Your task to perform on an android device: allow notifications from all sites in the chrome app Image 0: 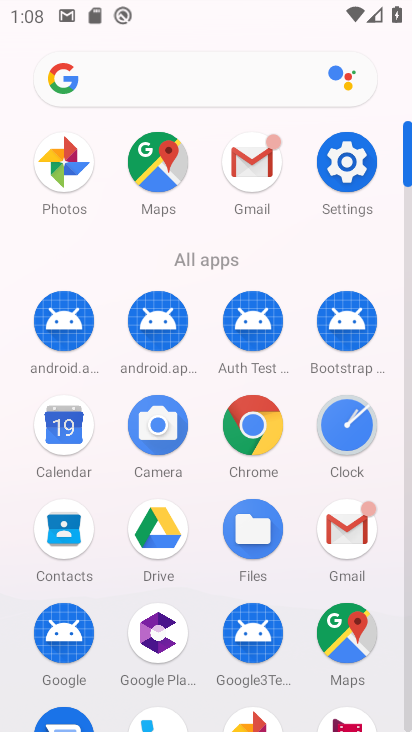
Step 0: click (260, 420)
Your task to perform on an android device: allow notifications from all sites in the chrome app Image 1: 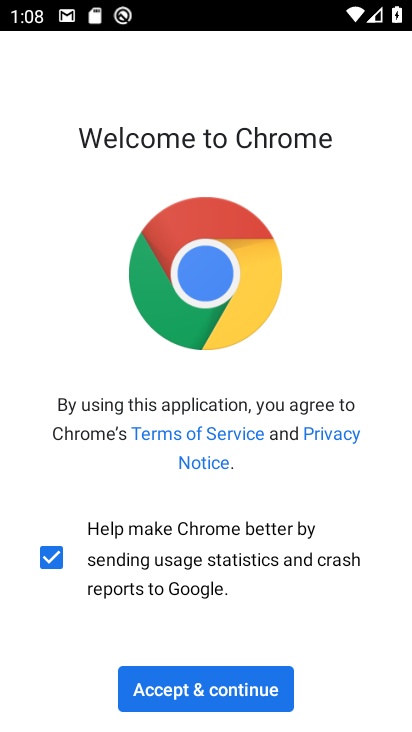
Step 1: click (247, 684)
Your task to perform on an android device: allow notifications from all sites in the chrome app Image 2: 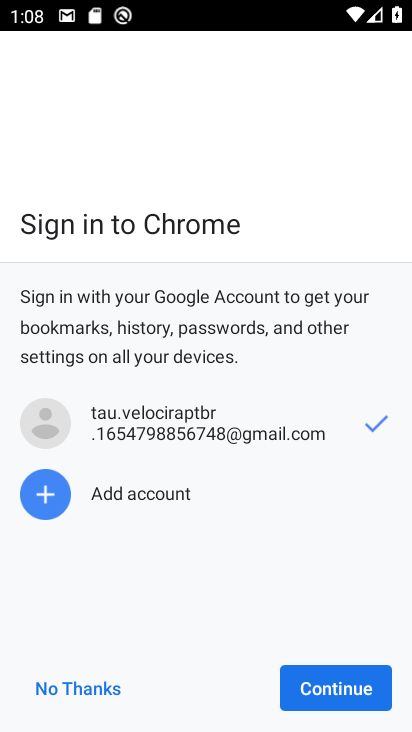
Step 2: click (325, 681)
Your task to perform on an android device: allow notifications from all sites in the chrome app Image 3: 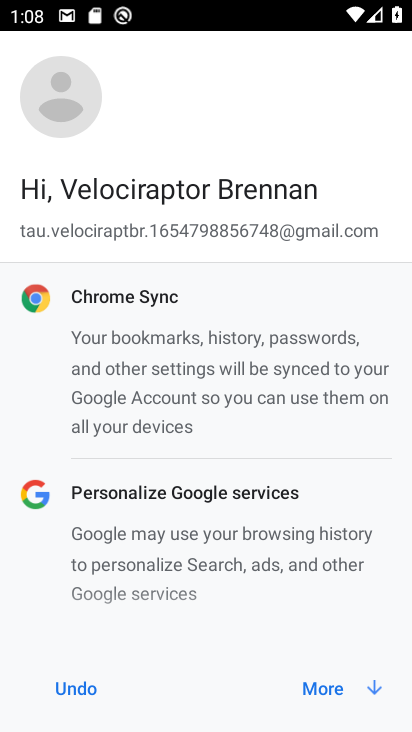
Step 3: click (325, 681)
Your task to perform on an android device: allow notifications from all sites in the chrome app Image 4: 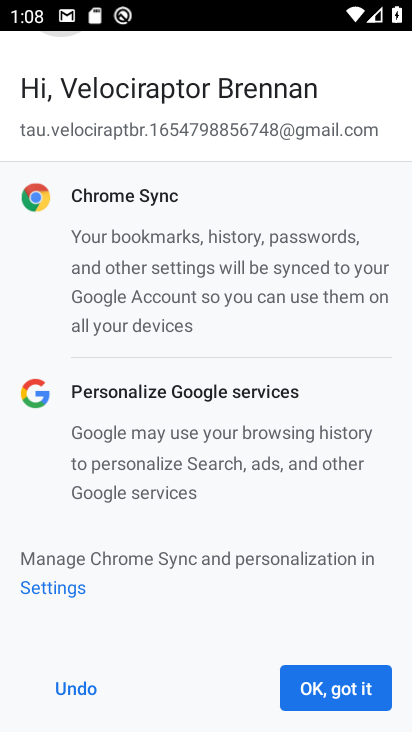
Step 4: click (325, 680)
Your task to perform on an android device: allow notifications from all sites in the chrome app Image 5: 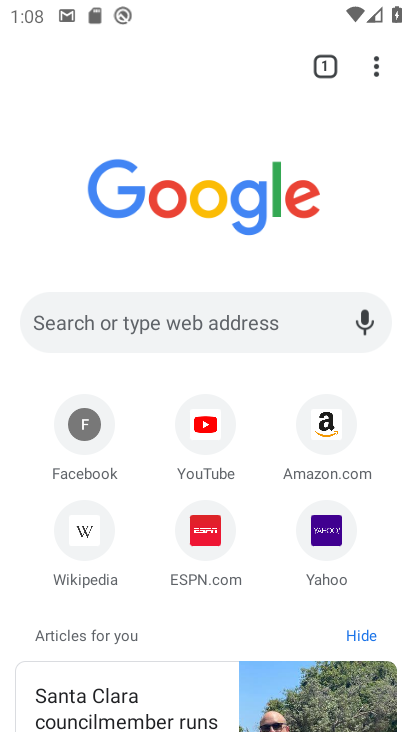
Step 5: click (375, 69)
Your task to perform on an android device: allow notifications from all sites in the chrome app Image 6: 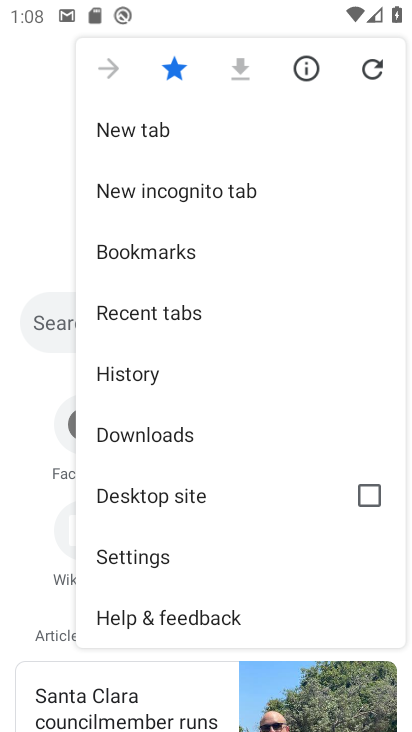
Step 6: click (375, 69)
Your task to perform on an android device: allow notifications from all sites in the chrome app Image 7: 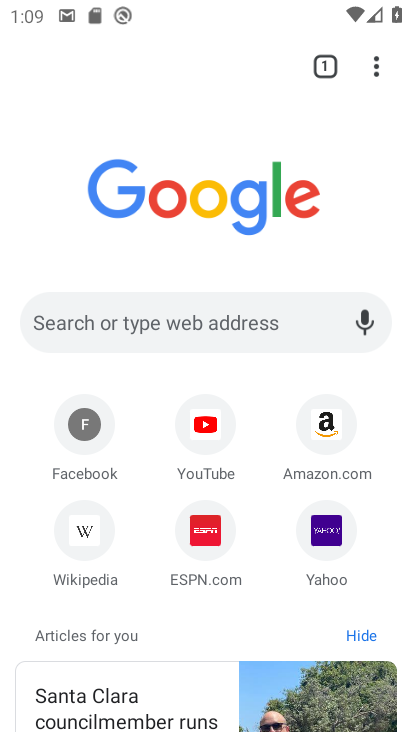
Step 7: click (375, 69)
Your task to perform on an android device: allow notifications from all sites in the chrome app Image 8: 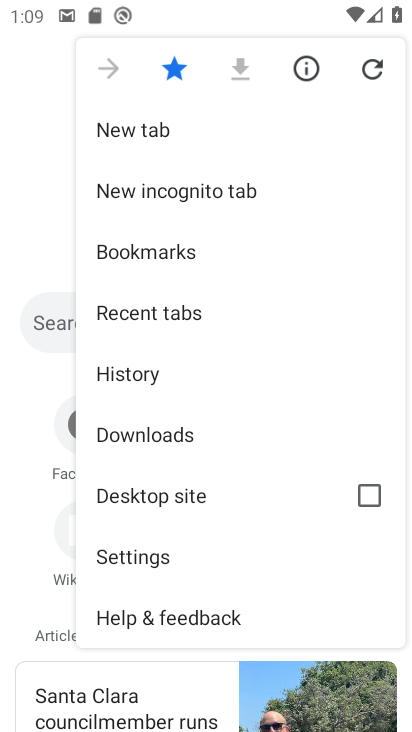
Step 8: click (170, 561)
Your task to perform on an android device: allow notifications from all sites in the chrome app Image 9: 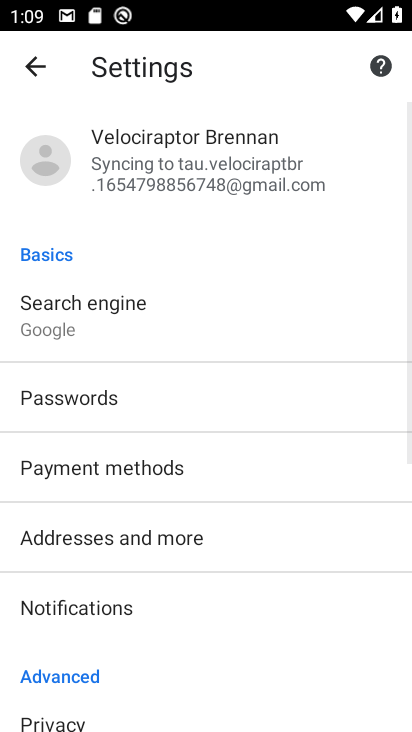
Step 9: drag from (245, 533) to (263, 215)
Your task to perform on an android device: allow notifications from all sites in the chrome app Image 10: 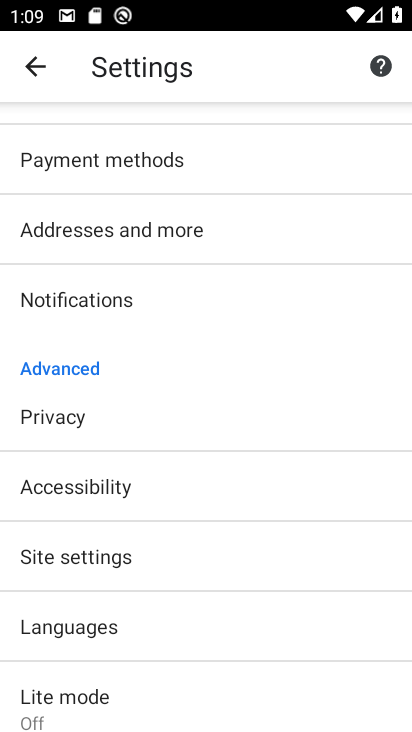
Step 10: click (197, 295)
Your task to perform on an android device: allow notifications from all sites in the chrome app Image 11: 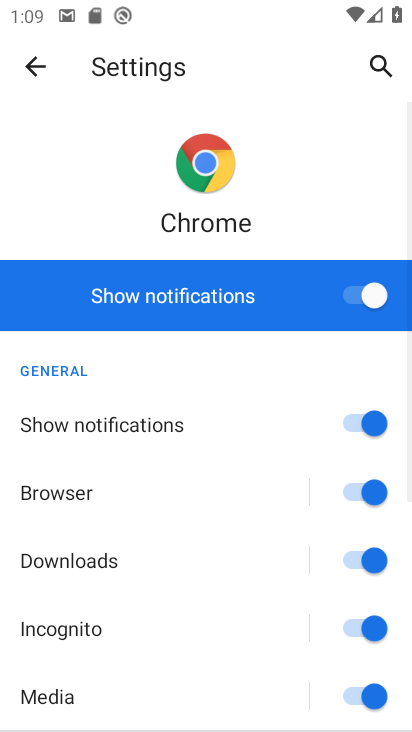
Step 11: task complete